Your task to perform on an android device: see tabs open on other devices in the chrome app Image 0: 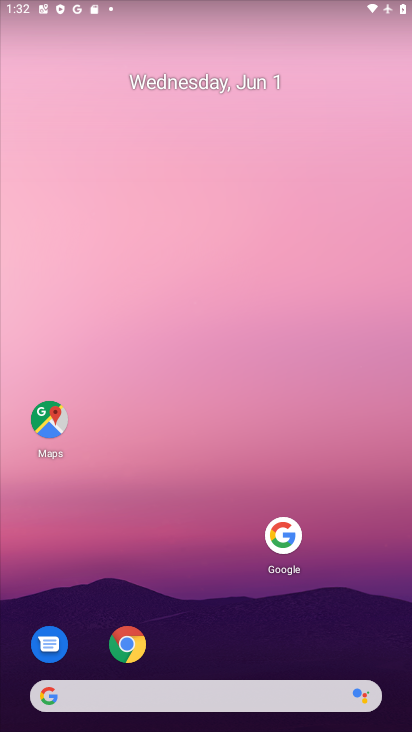
Step 0: click (122, 645)
Your task to perform on an android device: see tabs open on other devices in the chrome app Image 1: 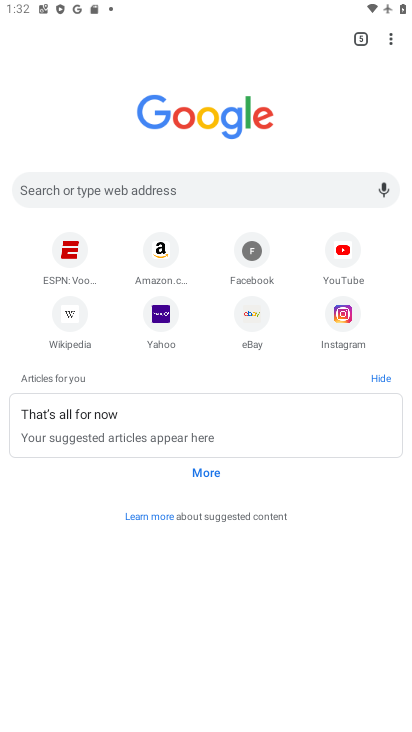
Step 1: task complete